Your task to perform on an android device: Turn on the flashlight Image 0: 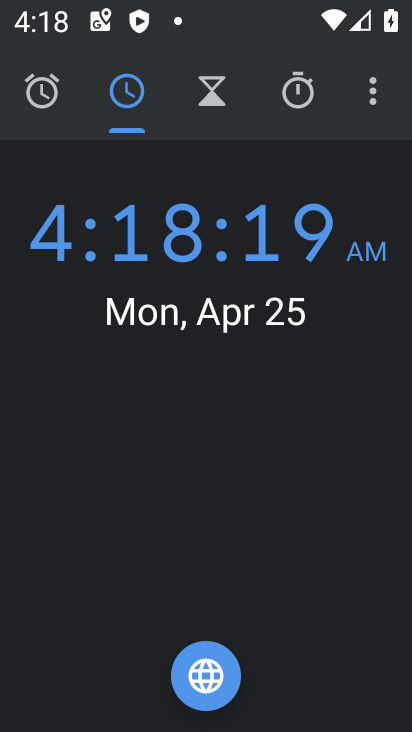
Step 0: press home button
Your task to perform on an android device: Turn on the flashlight Image 1: 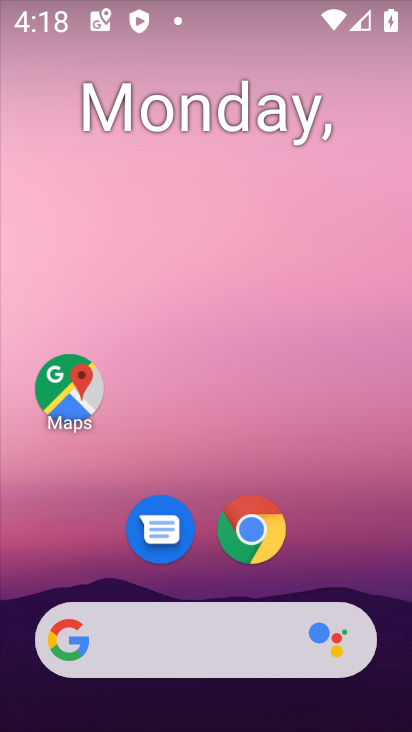
Step 1: drag from (222, 724) to (217, 333)
Your task to perform on an android device: Turn on the flashlight Image 2: 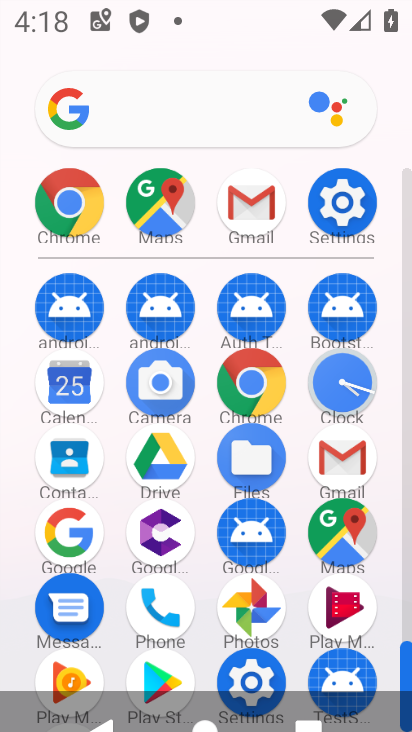
Step 2: click (340, 204)
Your task to perform on an android device: Turn on the flashlight Image 3: 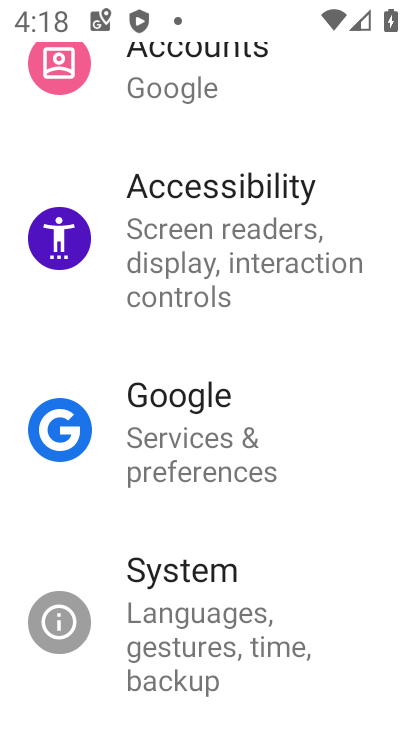
Step 3: task complete